Your task to perform on an android device: Open Google Maps Image 0: 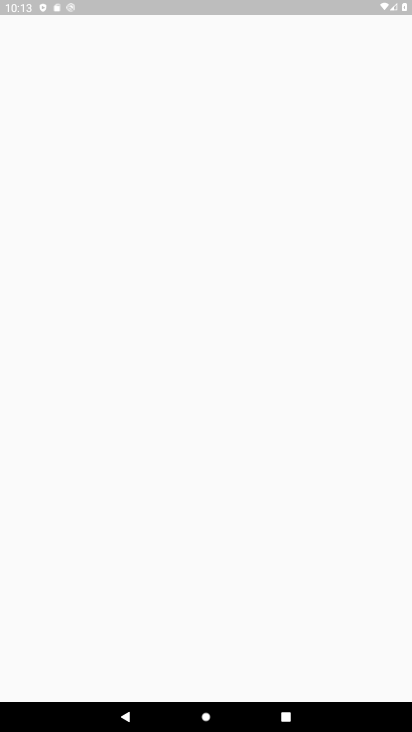
Step 0: press home button
Your task to perform on an android device: Open Google Maps Image 1: 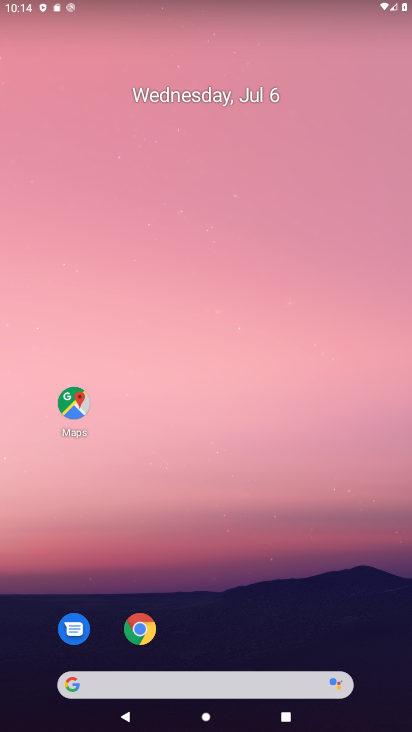
Step 1: drag from (302, 610) to (308, 129)
Your task to perform on an android device: Open Google Maps Image 2: 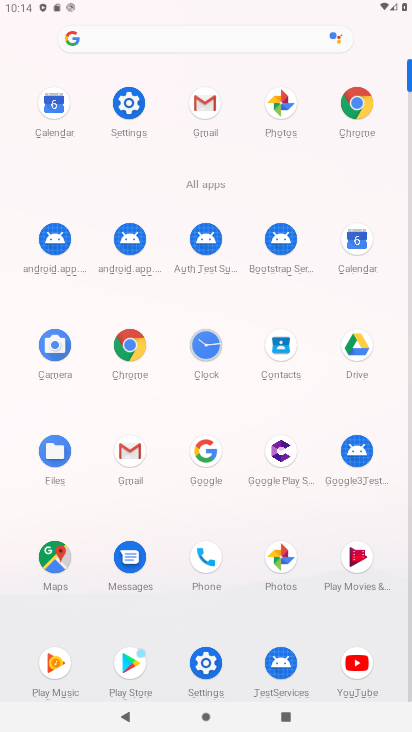
Step 2: click (47, 561)
Your task to perform on an android device: Open Google Maps Image 3: 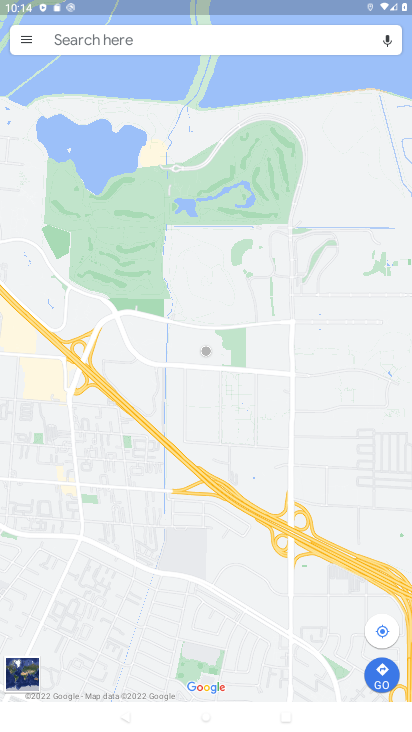
Step 3: task complete